Your task to perform on an android device: Open calendar and show me the third week of next month Image 0: 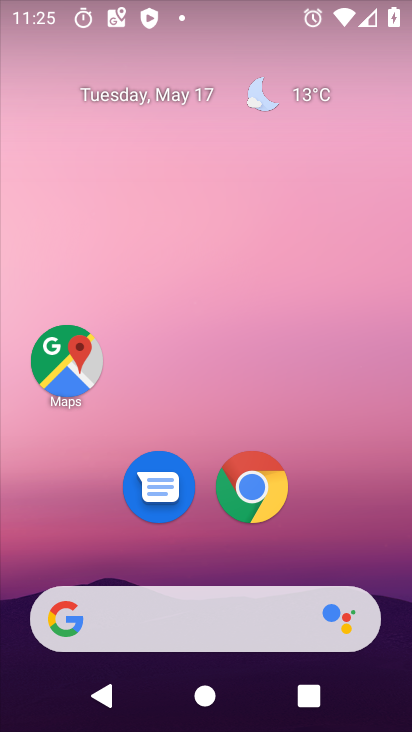
Step 0: drag from (219, 727) to (204, 146)
Your task to perform on an android device: Open calendar and show me the third week of next month Image 1: 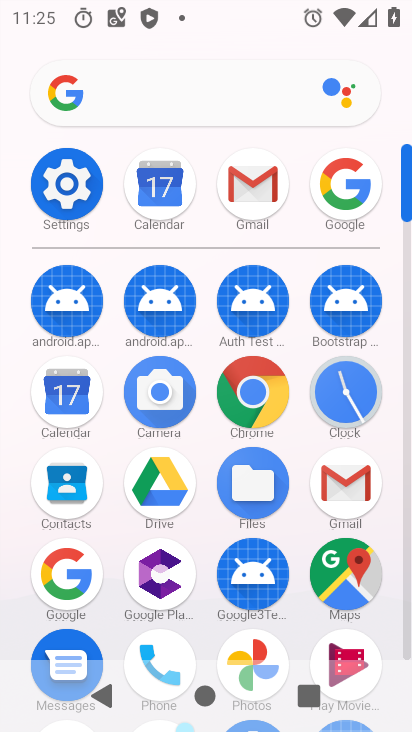
Step 1: click (64, 400)
Your task to perform on an android device: Open calendar and show me the third week of next month Image 2: 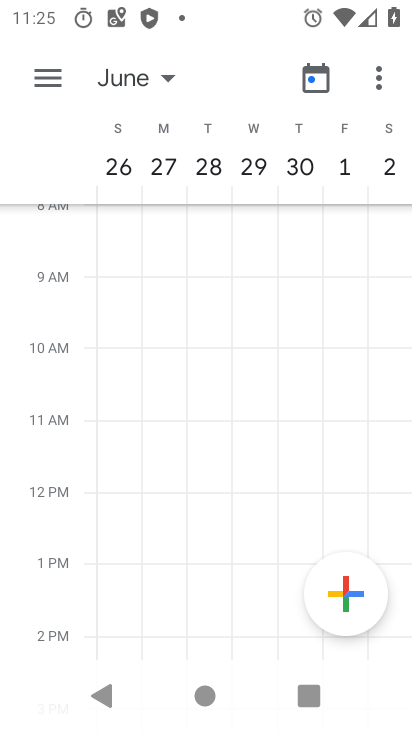
Step 2: click (157, 79)
Your task to perform on an android device: Open calendar and show me the third week of next month Image 3: 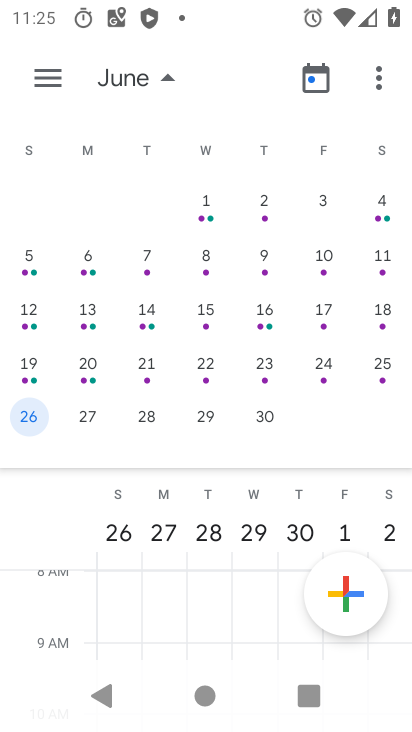
Step 3: click (84, 357)
Your task to perform on an android device: Open calendar and show me the third week of next month Image 4: 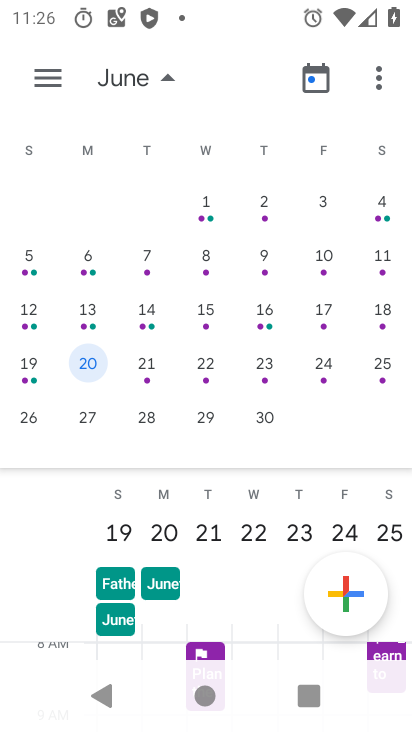
Step 4: click (85, 356)
Your task to perform on an android device: Open calendar and show me the third week of next month Image 5: 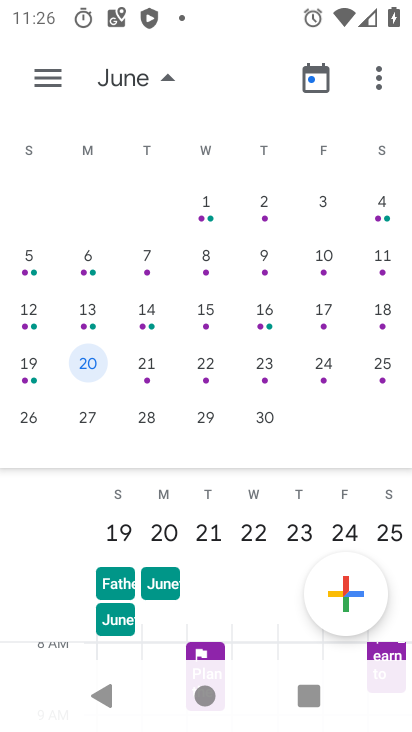
Step 5: click (170, 74)
Your task to perform on an android device: Open calendar and show me the third week of next month Image 6: 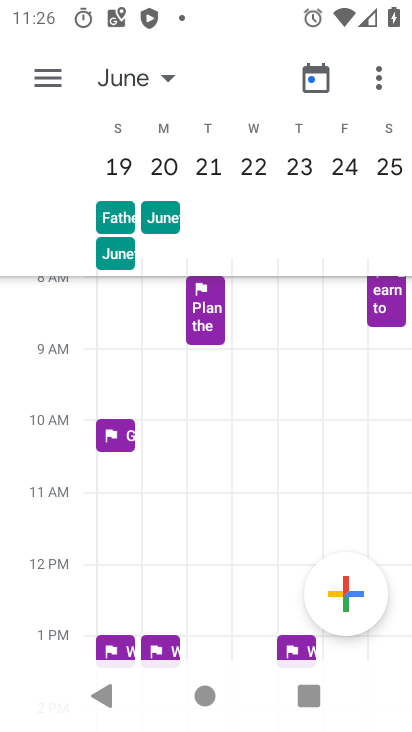
Step 6: task complete